Your task to perform on an android device: open app "Facebook Messenger" (install if not already installed) Image 0: 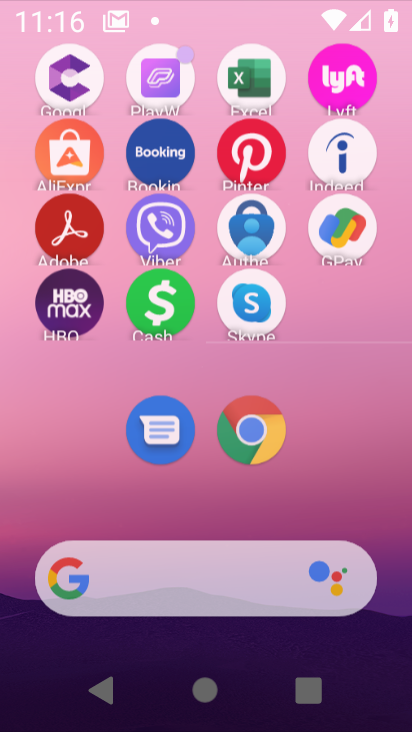
Step 0: press home button
Your task to perform on an android device: open app "Facebook Messenger" (install if not already installed) Image 1: 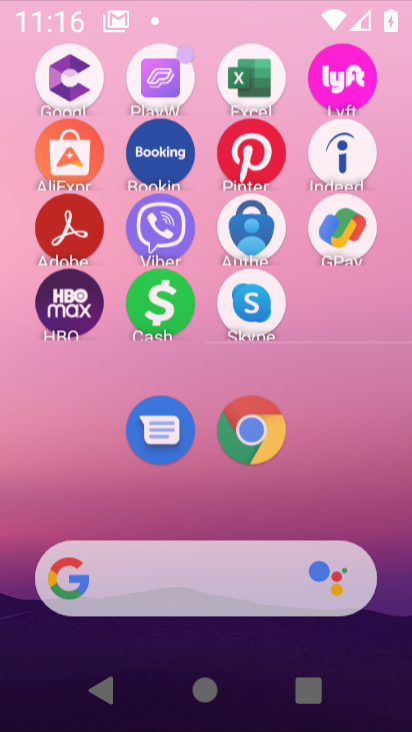
Step 1: click (348, 172)
Your task to perform on an android device: open app "Facebook Messenger" (install if not already installed) Image 2: 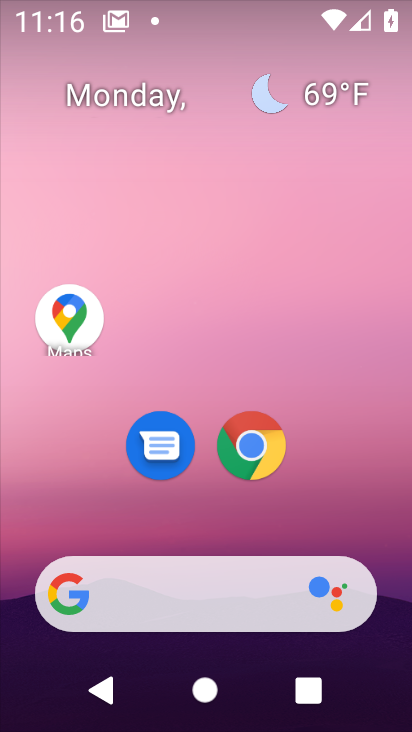
Step 2: drag from (211, 608) to (210, 158)
Your task to perform on an android device: open app "Facebook Messenger" (install if not already installed) Image 3: 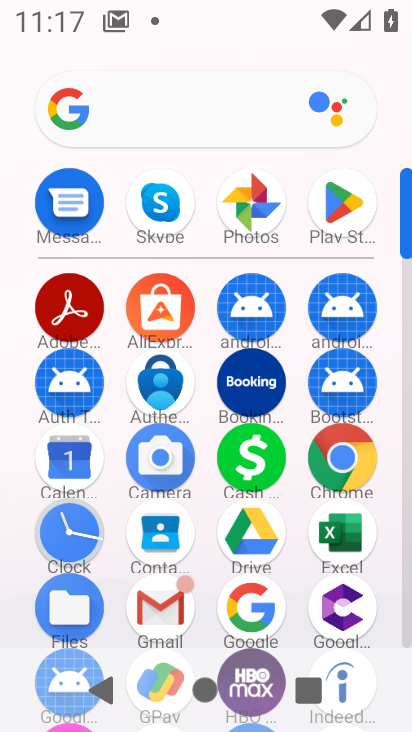
Step 3: drag from (289, 405) to (288, 81)
Your task to perform on an android device: open app "Facebook Messenger" (install if not already installed) Image 4: 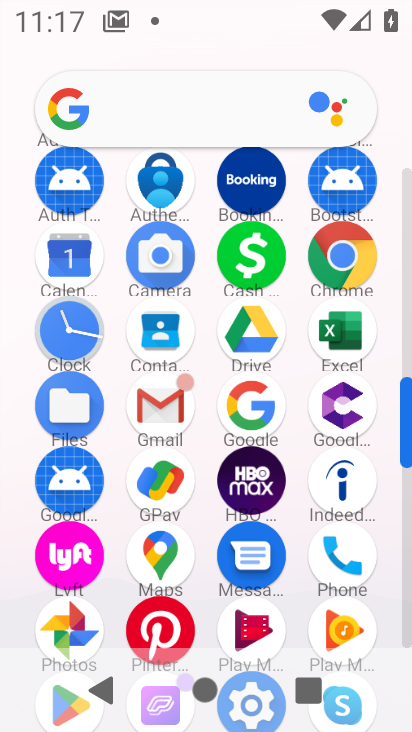
Step 4: drag from (247, 449) to (267, 178)
Your task to perform on an android device: open app "Facebook Messenger" (install if not already installed) Image 5: 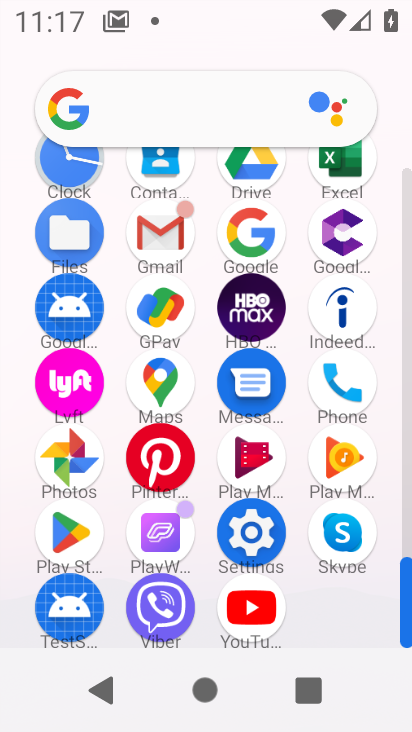
Step 5: drag from (249, 511) to (280, 314)
Your task to perform on an android device: open app "Facebook Messenger" (install if not already installed) Image 6: 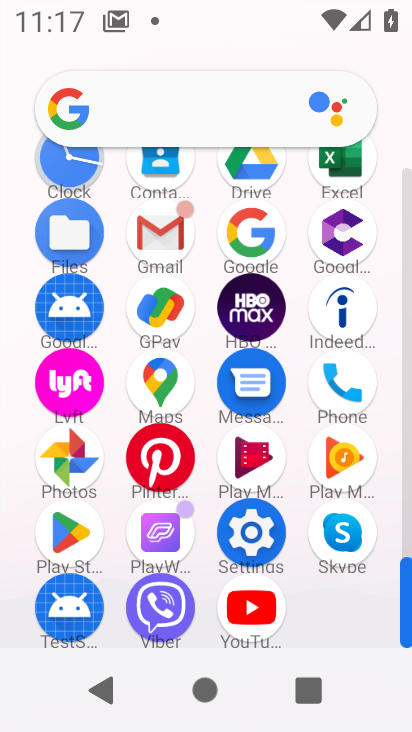
Step 6: click (77, 538)
Your task to perform on an android device: open app "Facebook Messenger" (install if not already installed) Image 7: 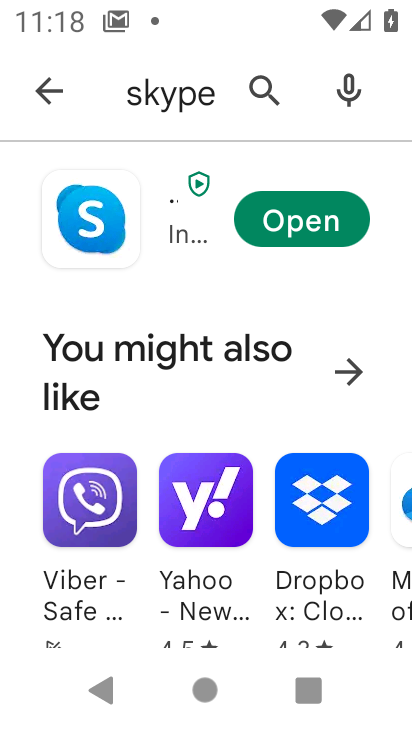
Step 7: click (54, 84)
Your task to perform on an android device: open app "Facebook Messenger" (install if not already installed) Image 8: 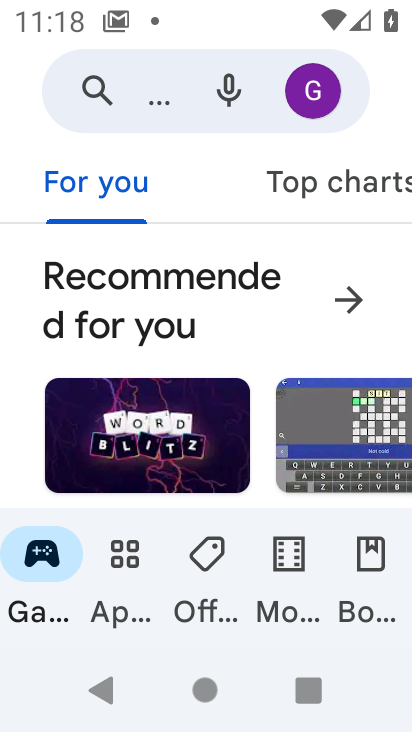
Step 8: click (77, 81)
Your task to perform on an android device: open app "Facebook Messenger" (install if not already installed) Image 9: 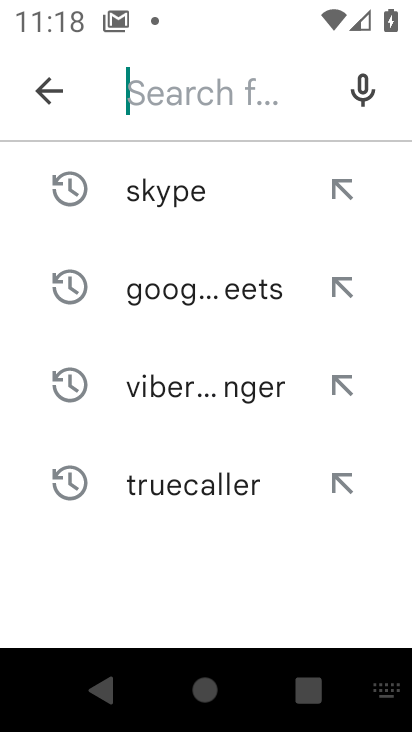
Step 9: type "Facebook Messenger"
Your task to perform on an android device: open app "Facebook Messenger" (install if not already installed) Image 10: 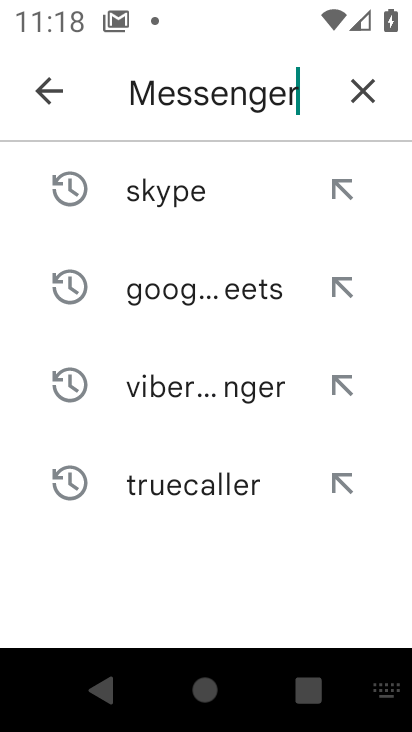
Step 10: type ""
Your task to perform on an android device: open app "Facebook Messenger" (install if not already installed) Image 11: 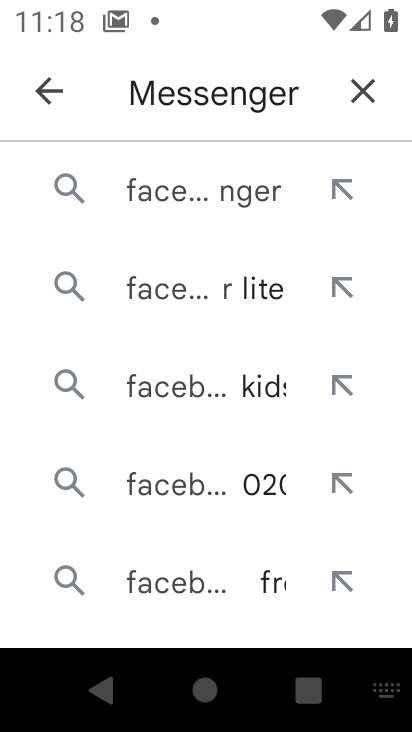
Step 11: click (241, 196)
Your task to perform on an android device: open app "Facebook Messenger" (install if not already installed) Image 12: 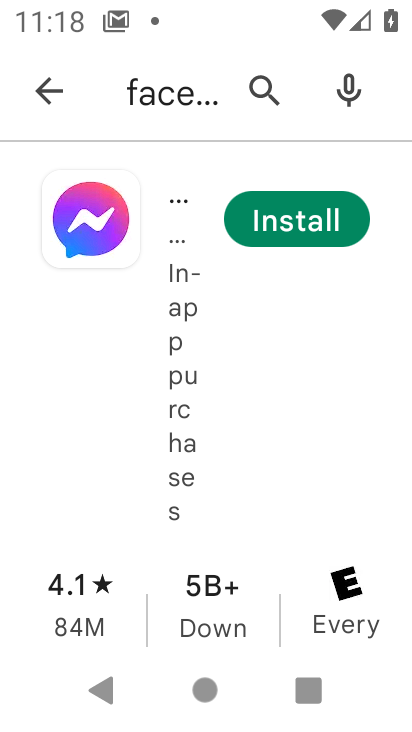
Step 12: click (313, 228)
Your task to perform on an android device: open app "Facebook Messenger" (install if not already installed) Image 13: 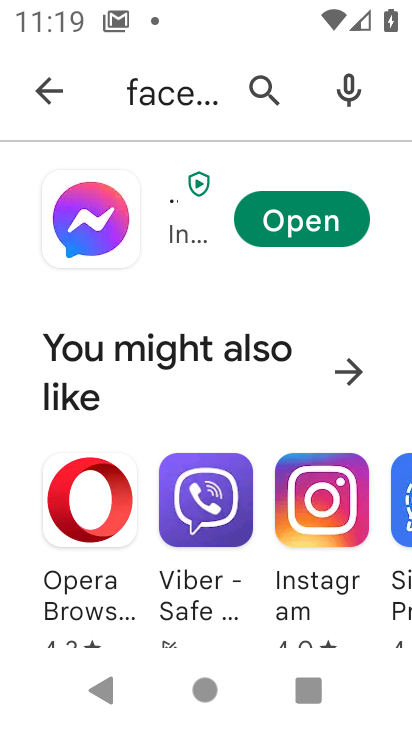
Step 13: click (309, 229)
Your task to perform on an android device: open app "Facebook Messenger" (install if not already installed) Image 14: 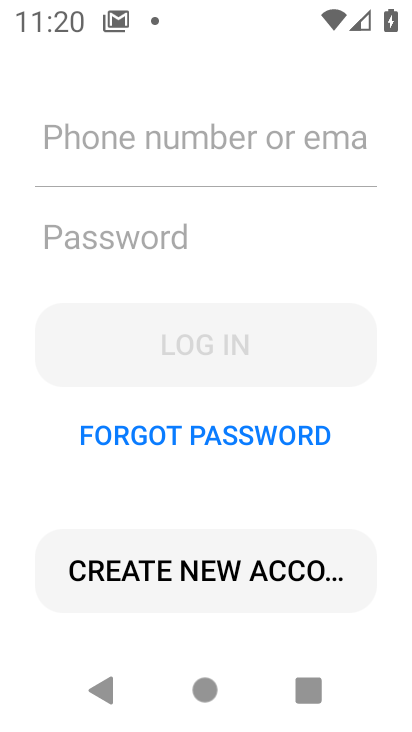
Step 14: press home button
Your task to perform on an android device: open app "Facebook Messenger" (install if not already installed) Image 15: 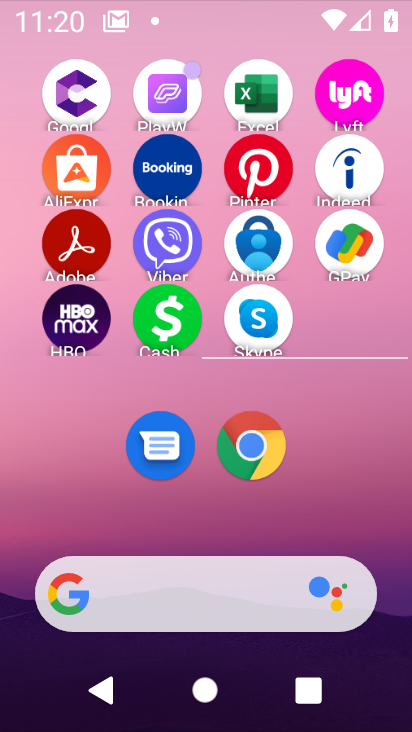
Step 15: drag from (217, 536) to (280, 9)
Your task to perform on an android device: open app "Facebook Messenger" (install if not already installed) Image 16: 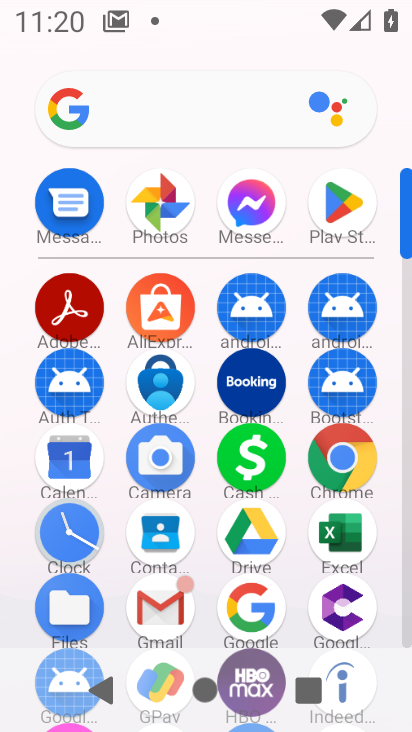
Step 16: click (409, 503)
Your task to perform on an android device: open app "Facebook Messenger" (install if not already installed) Image 17: 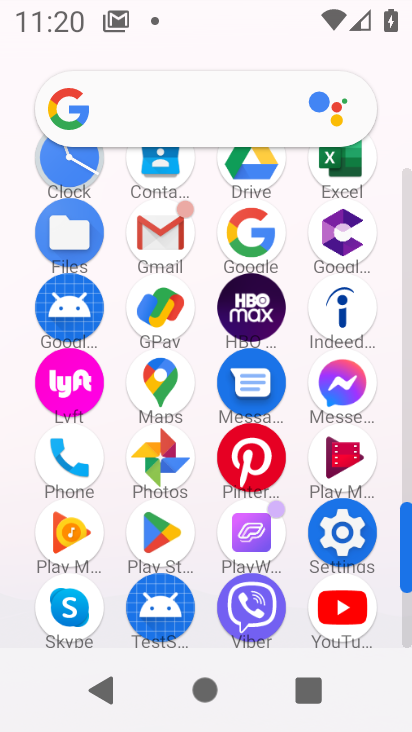
Step 17: click (174, 548)
Your task to perform on an android device: open app "Facebook Messenger" (install if not already installed) Image 18: 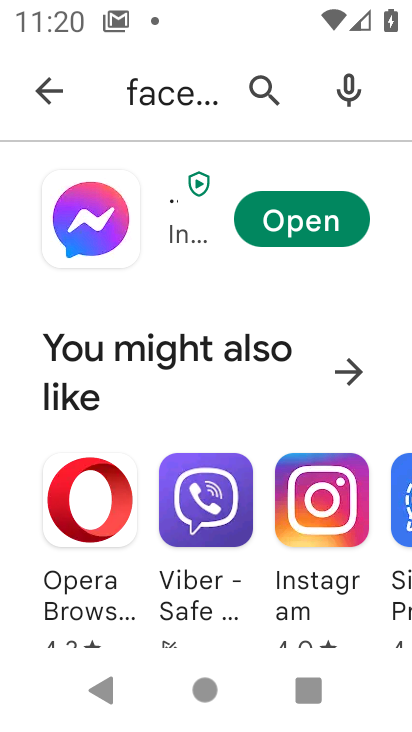
Step 18: task complete